Your task to perform on an android device: Open Google Maps Image 0: 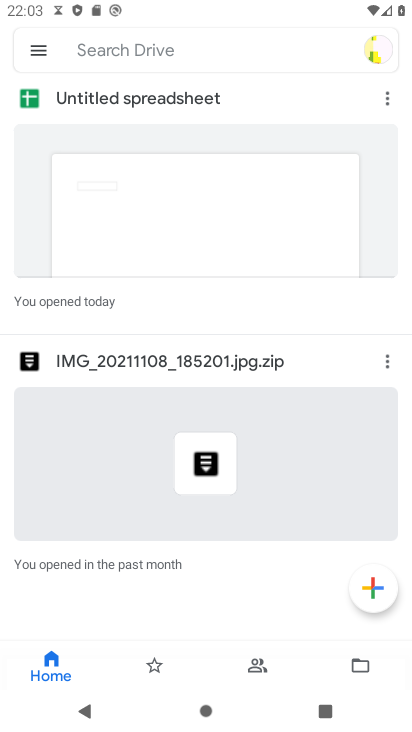
Step 0: press home button
Your task to perform on an android device: Open Google Maps Image 1: 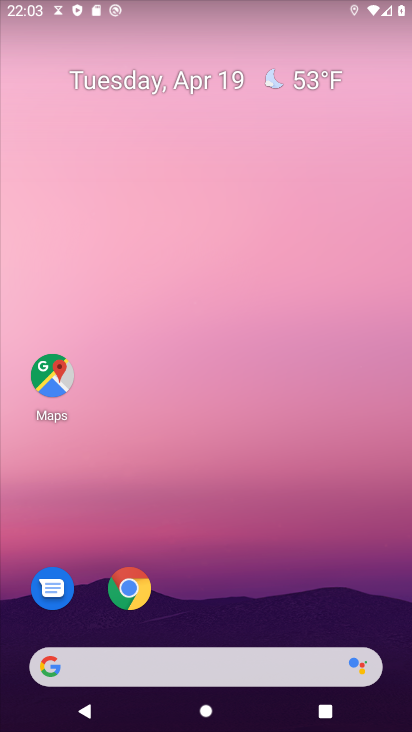
Step 1: click (50, 375)
Your task to perform on an android device: Open Google Maps Image 2: 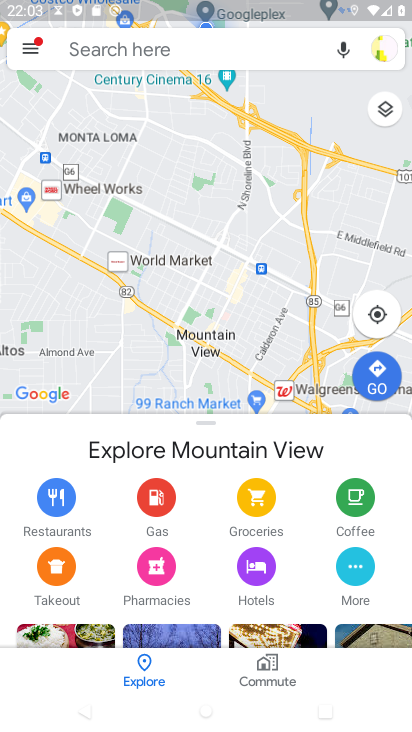
Step 2: task complete